Your task to perform on an android device: Show me recent news Image 0: 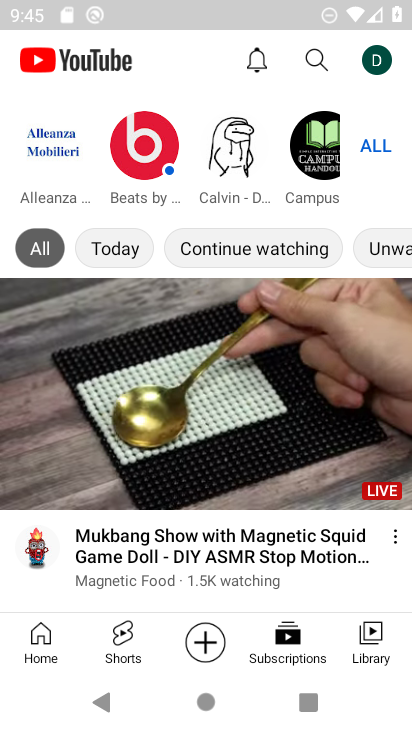
Step 0: press back button
Your task to perform on an android device: Show me recent news Image 1: 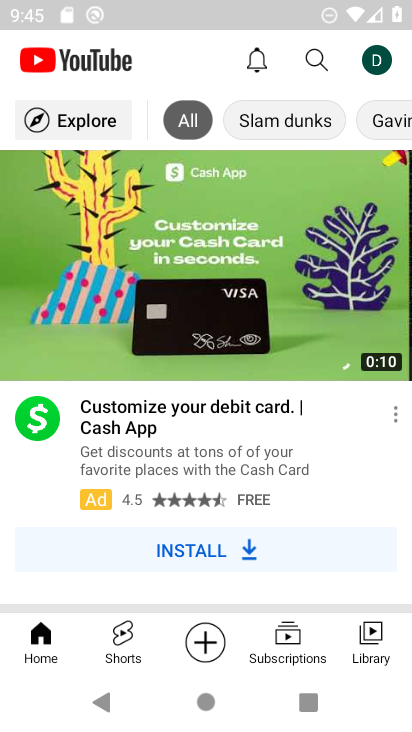
Step 1: press back button
Your task to perform on an android device: Show me recent news Image 2: 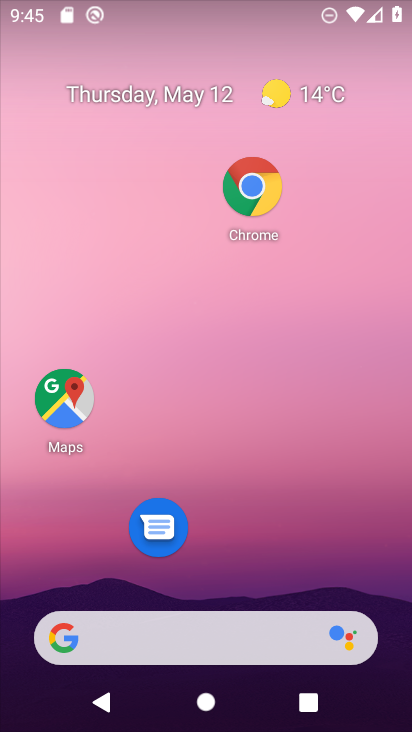
Step 2: drag from (263, 190) to (284, 515)
Your task to perform on an android device: Show me recent news Image 3: 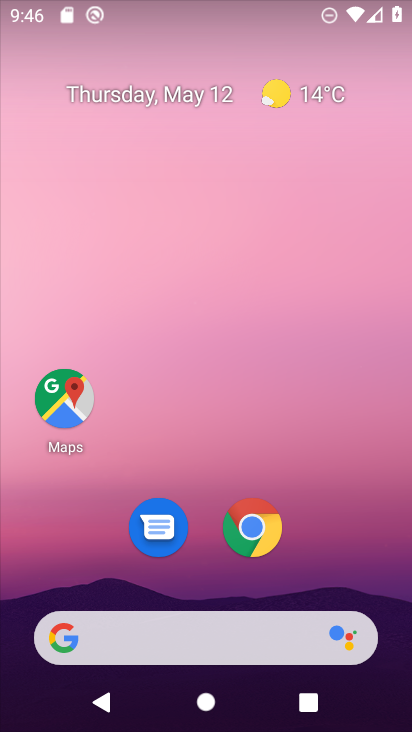
Step 3: click (274, 627)
Your task to perform on an android device: Show me recent news Image 4: 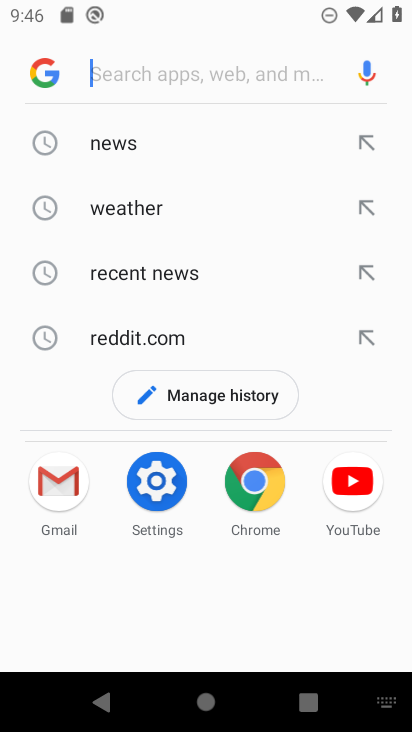
Step 4: click (188, 155)
Your task to perform on an android device: Show me recent news Image 5: 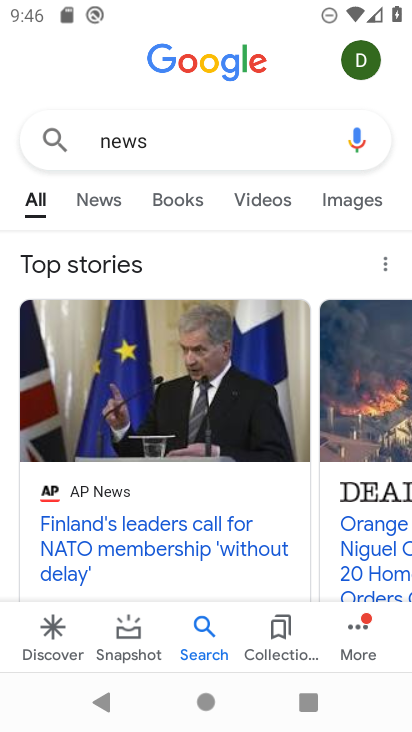
Step 5: task complete